Your task to perform on an android device: What is the recent news? Image 0: 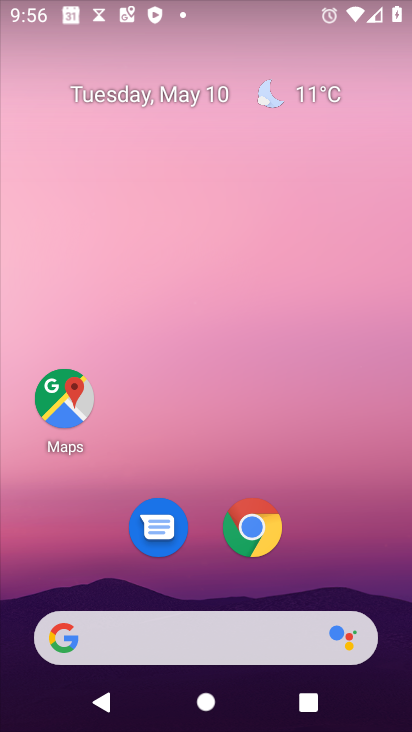
Step 0: drag from (4, 299) to (188, 330)
Your task to perform on an android device: What is the recent news? Image 1: 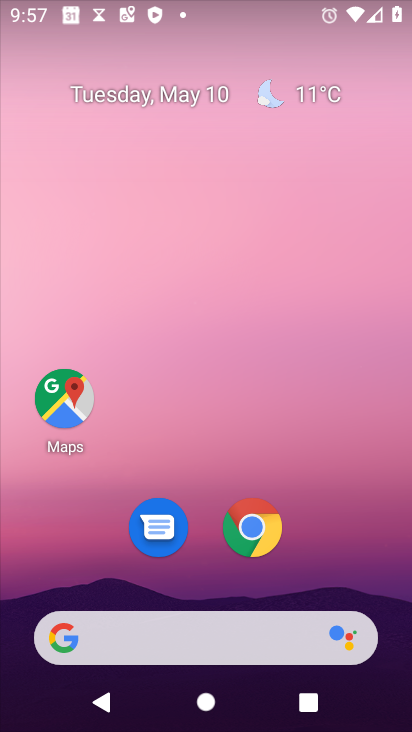
Step 1: task complete